Your task to perform on an android device: Go to sound settings Image 0: 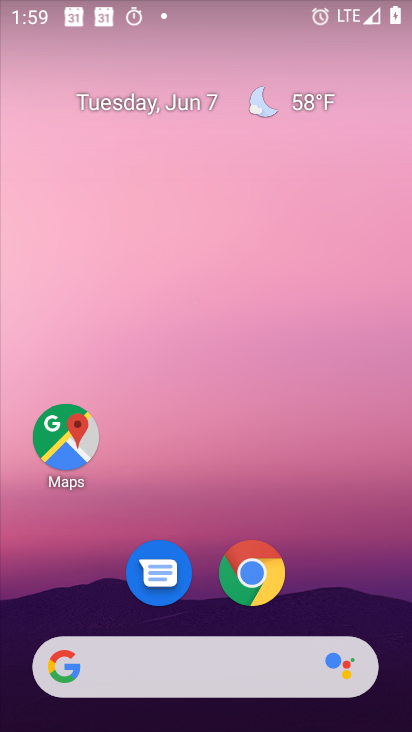
Step 0: drag from (311, 575) to (228, 1)
Your task to perform on an android device: Go to sound settings Image 1: 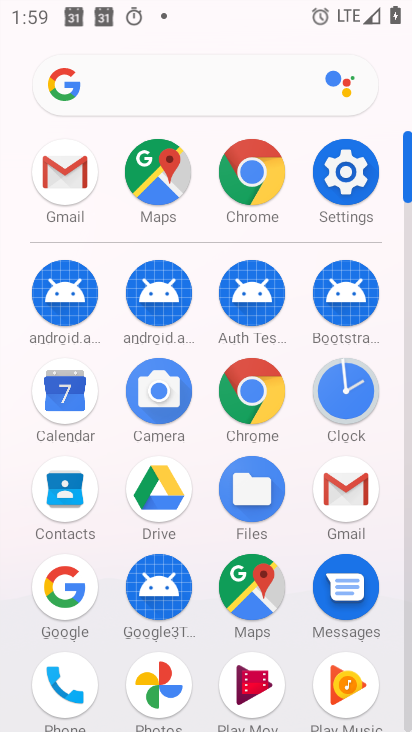
Step 1: click (340, 169)
Your task to perform on an android device: Go to sound settings Image 2: 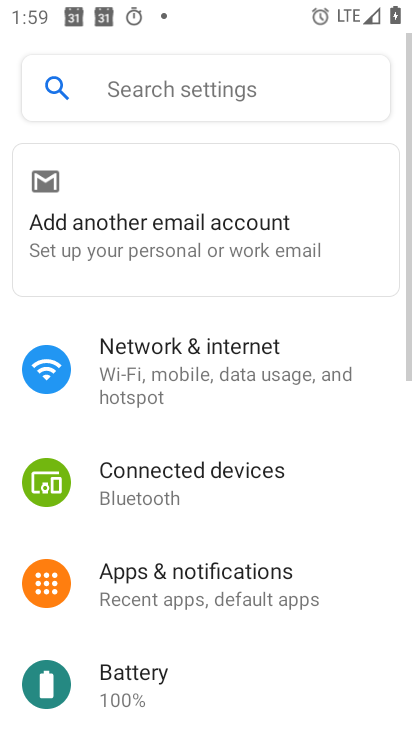
Step 2: drag from (246, 603) to (225, 229)
Your task to perform on an android device: Go to sound settings Image 3: 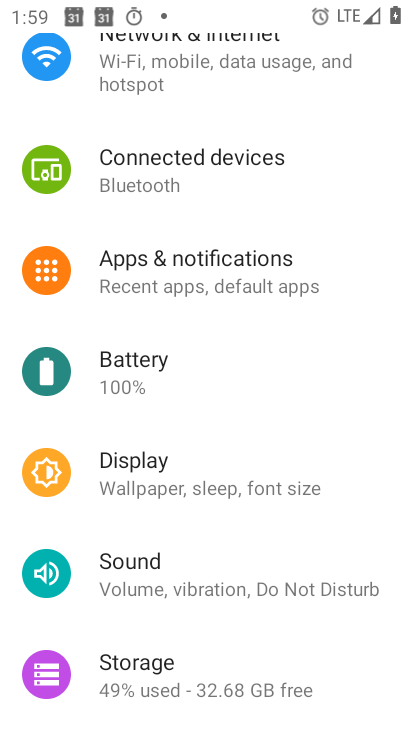
Step 3: click (161, 577)
Your task to perform on an android device: Go to sound settings Image 4: 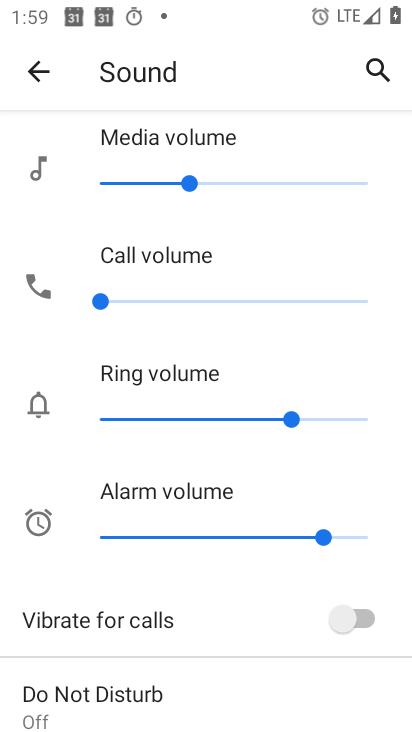
Step 4: task complete